Your task to perform on an android device: Open internet settings Image 0: 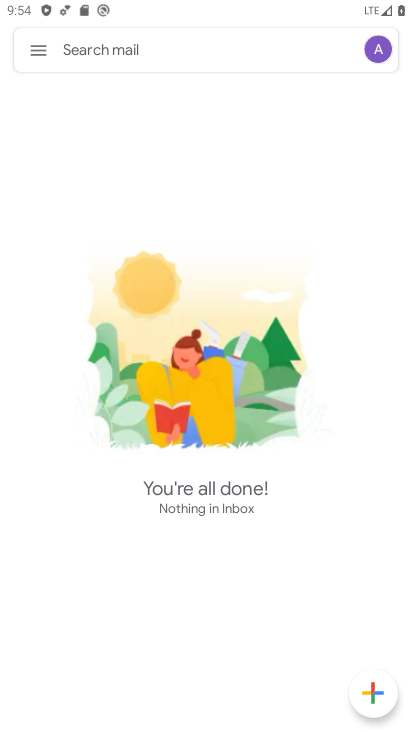
Step 0: press home button
Your task to perform on an android device: Open internet settings Image 1: 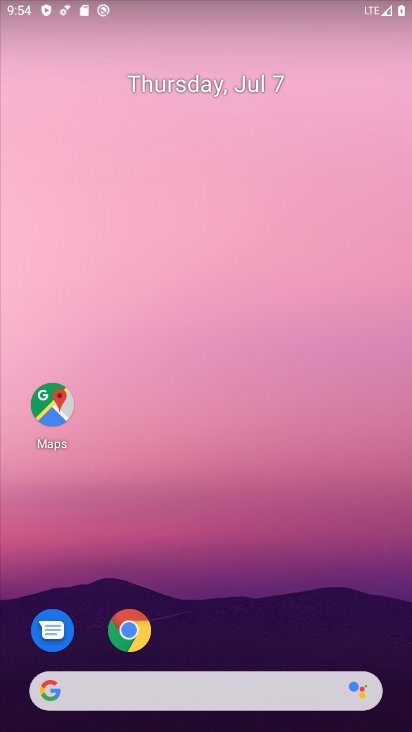
Step 1: drag from (223, 645) to (247, 36)
Your task to perform on an android device: Open internet settings Image 2: 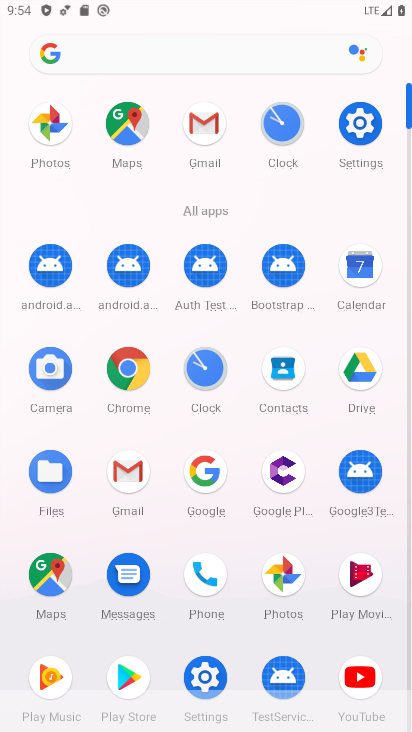
Step 2: click (362, 117)
Your task to perform on an android device: Open internet settings Image 3: 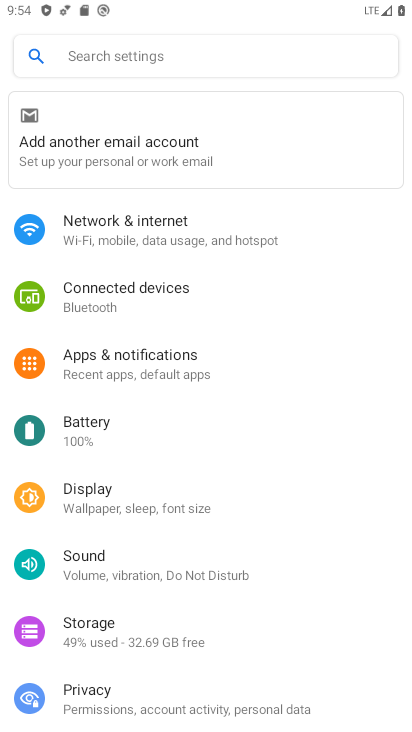
Step 3: click (161, 225)
Your task to perform on an android device: Open internet settings Image 4: 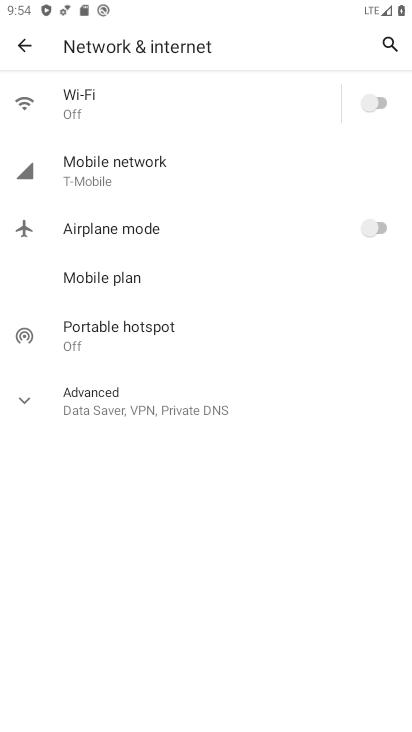
Step 4: click (37, 394)
Your task to perform on an android device: Open internet settings Image 5: 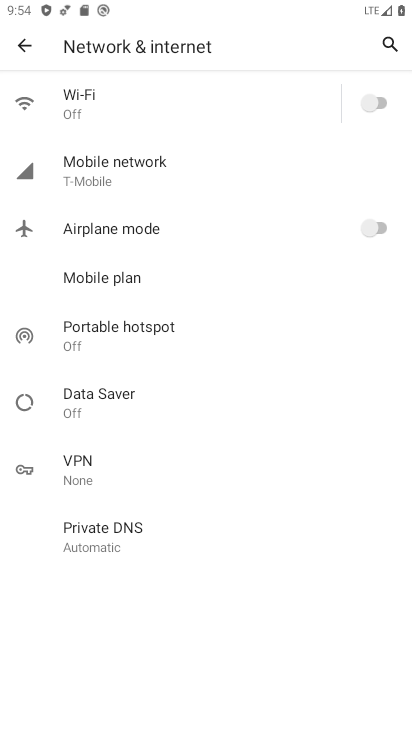
Step 5: task complete